Your task to perform on an android device: Go to notification settings Image 0: 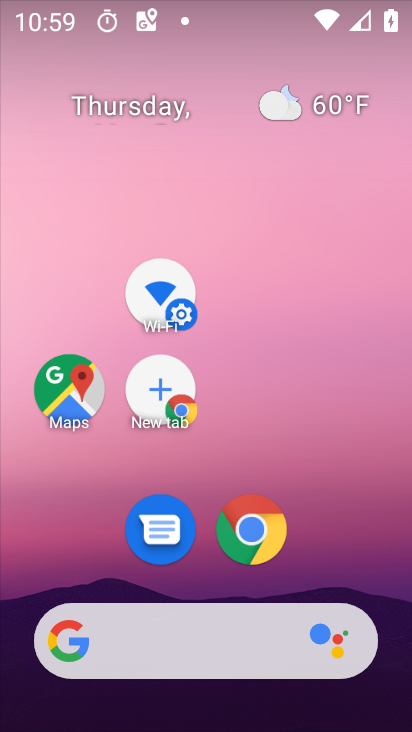
Step 0: drag from (368, 580) to (14, 51)
Your task to perform on an android device: Go to notification settings Image 1: 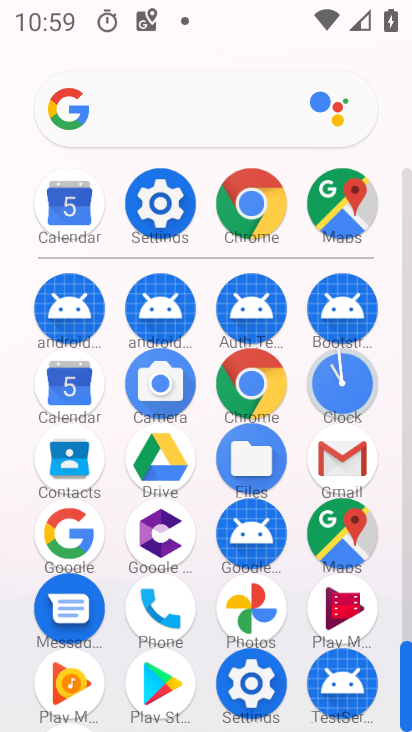
Step 1: click (158, 199)
Your task to perform on an android device: Go to notification settings Image 2: 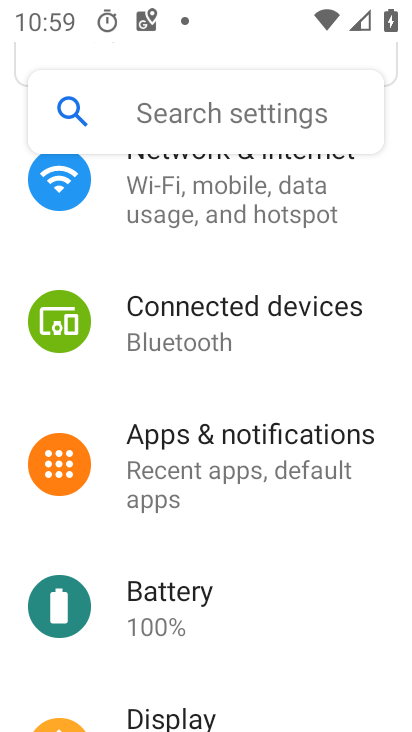
Step 2: click (260, 454)
Your task to perform on an android device: Go to notification settings Image 3: 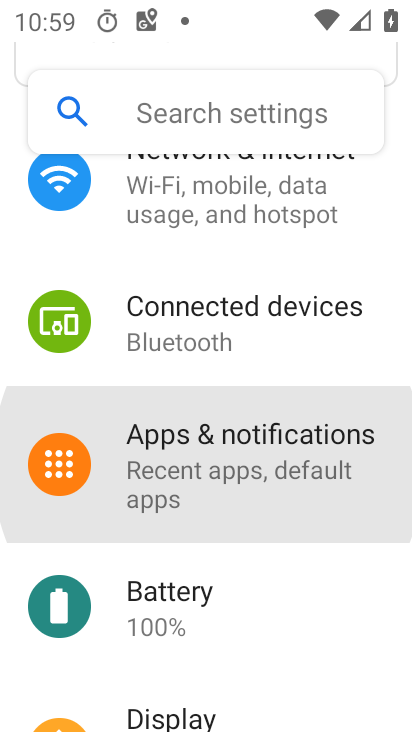
Step 3: click (255, 458)
Your task to perform on an android device: Go to notification settings Image 4: 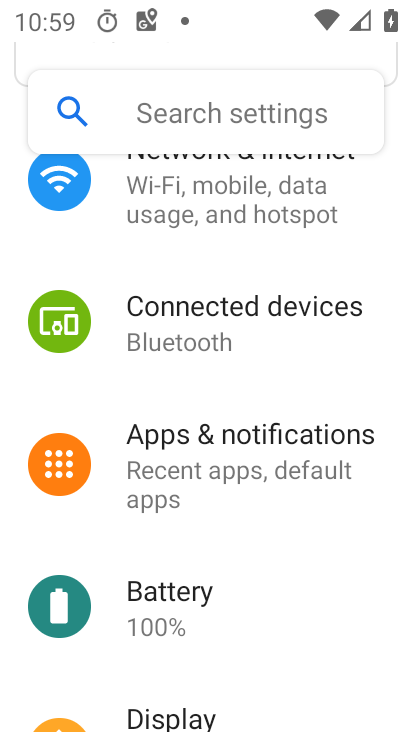
Step 4: click (253, 460)
Your task to perform on an android device: Go to notification settings Image 5: 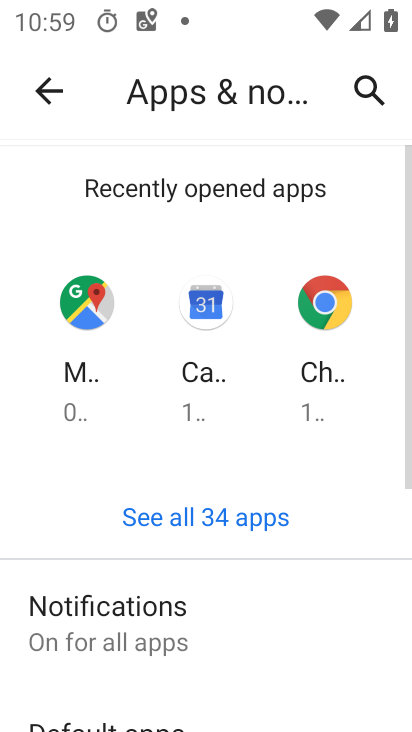
Step 5: drag from (175, 629) to (103, 175)
Your task to perform on an android device: Go to notification settings Image 6: 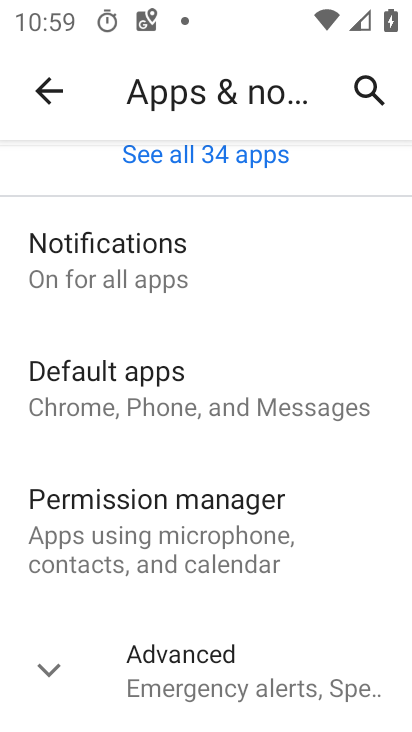
Step 6: click (133, 268)
Your task to perform on an android device: Go to notification settings Image 7: 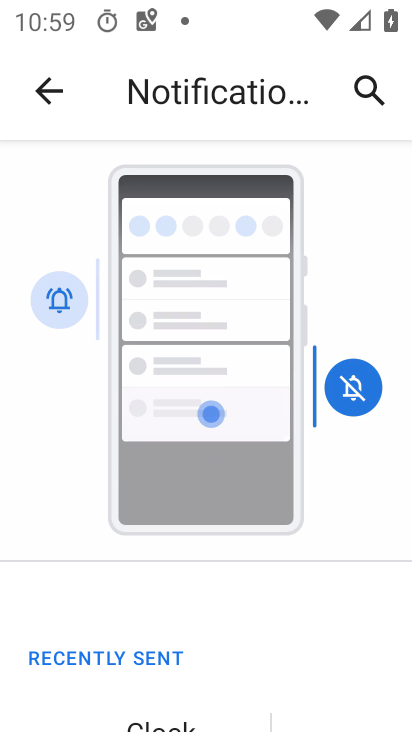
Step 7: drag from (191, 548) to (49, 4)
Your task to perform on an android device: Go to notification settings Image 8: 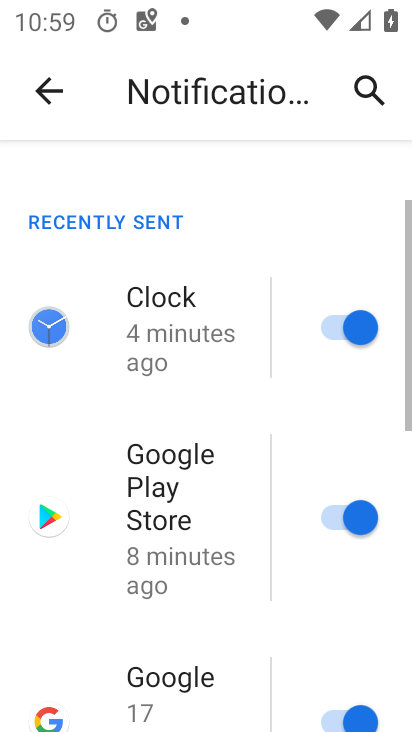
Step 8: drag from (166, 268) to (135, 44)
Your task to perform on an android device: Go to notification settings Image 9: 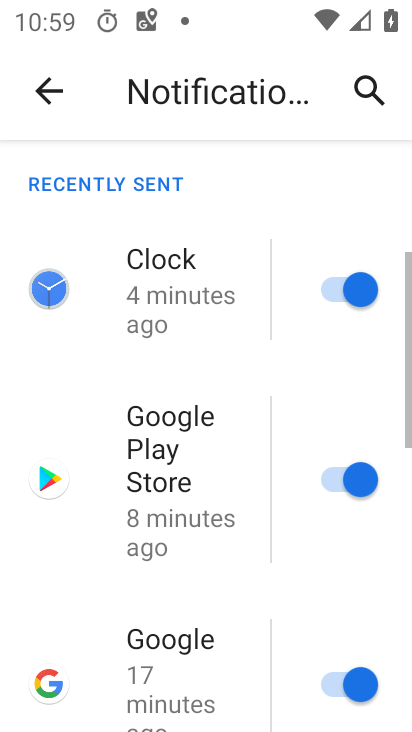
Step 9: drag from (204, 387) to (169, 4)
Your task to perform on an android device: Go to notification settings Image 10: 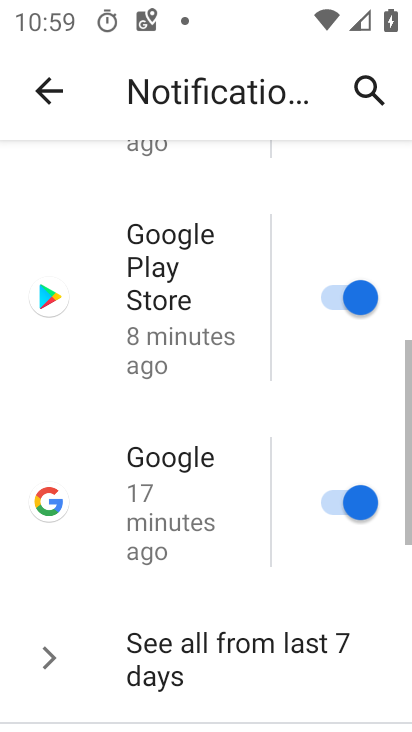
Step 10: drag from (189, 433) to (143, 37)
Your task to perform on an android device: Go to notification settings Image 11: 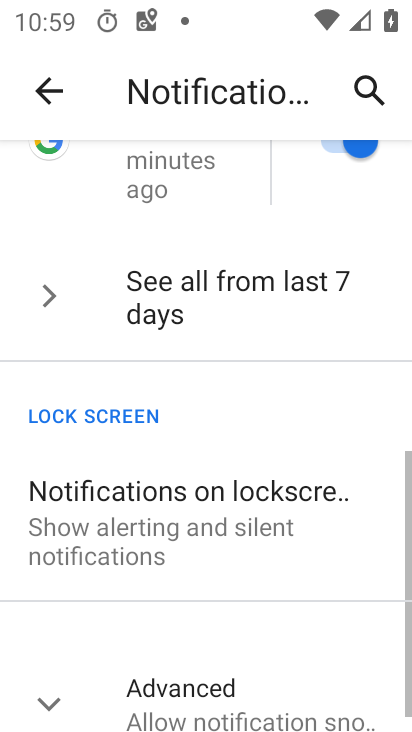
Step 11: drag from (195, 414) to (115, 11)
Your task to perform on an android device: Go to notification settings Image 12: 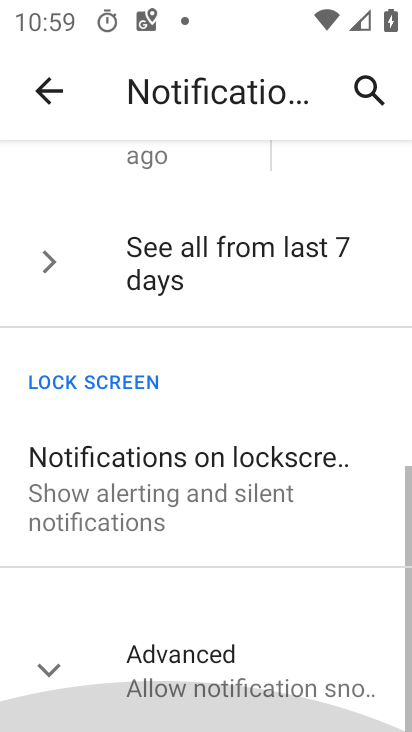
Step 12: drag from (154, 461) to (140, 0)
Your task to perform on an android device: Go to notification settings Image 13: 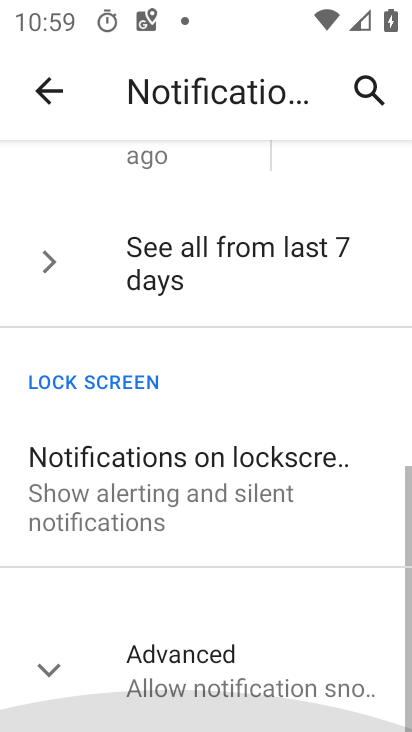
Step 13: drag from (227, 516) to (177, 6)
Your task to perform on an android device: Go to notification settings Image 14: 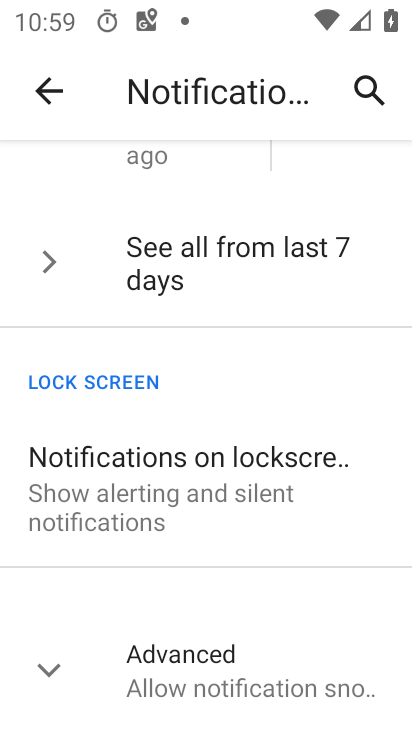
Step 14: click (226, 678)
Your task to perform on an android device: Go to notification settings Image 15: 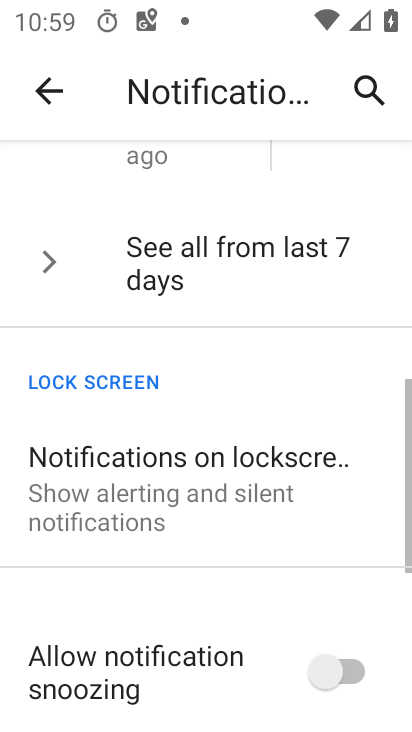
Step 15: task complete